Your task to perform on an android device: see tabs open on other devices in the chrome app Image 0: 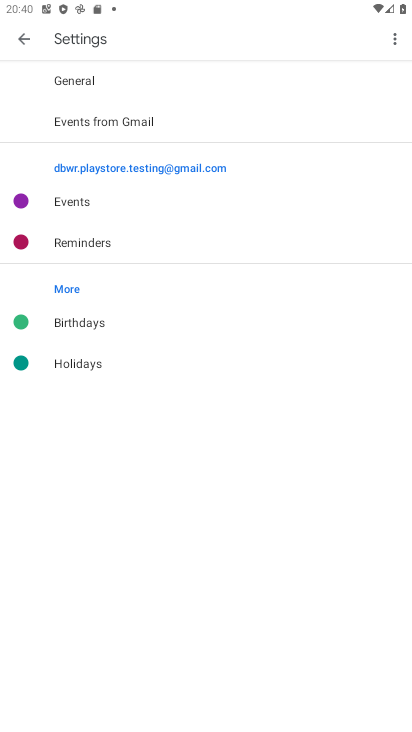
Step 0: press home button
Your task to perform on an android device: see tabs open on other devices in the chrome app Image 1: 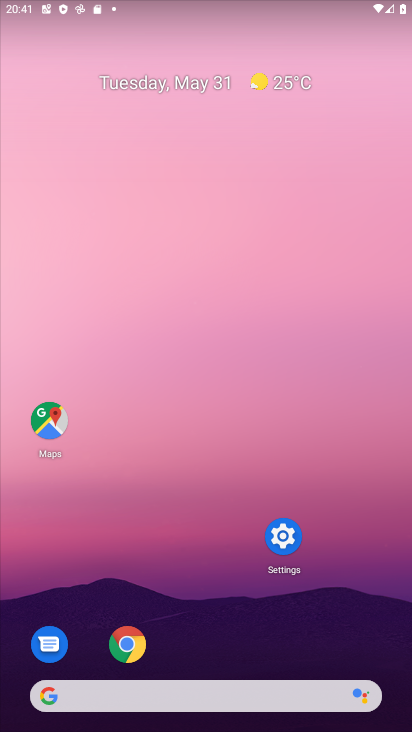
Step 1: click (137, 640)
Your task to perform on an android device: see tabs open on other devices in the chrome app Image 2: 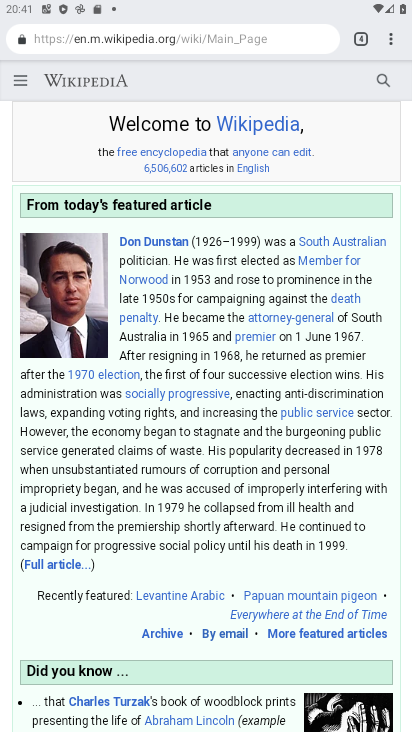
Step 2: click (364, 24)
Your task to perform on an android device: see tabs open on other devices in the chrome app Image 3: 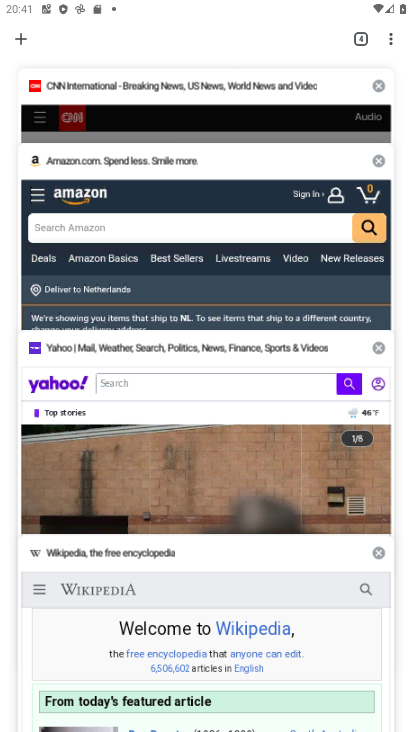
Step 3: click (22, 31)
Your task to perform on an android device: see tabs open on other devices in the chrome app Image 4: 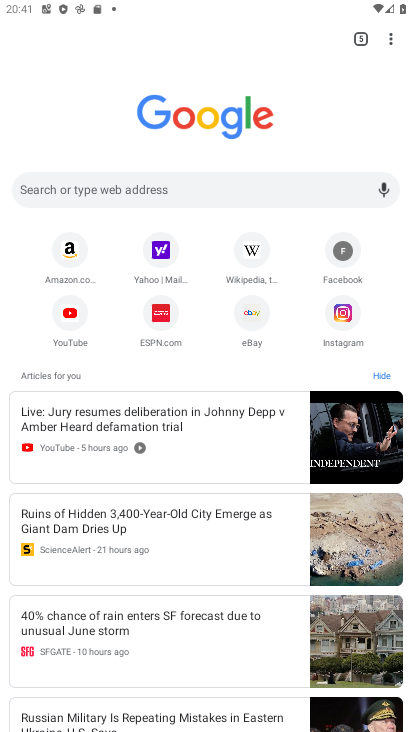
Step 4: task complete